Your task to perform on an android device: Open Chrome and go to settings Image 0: 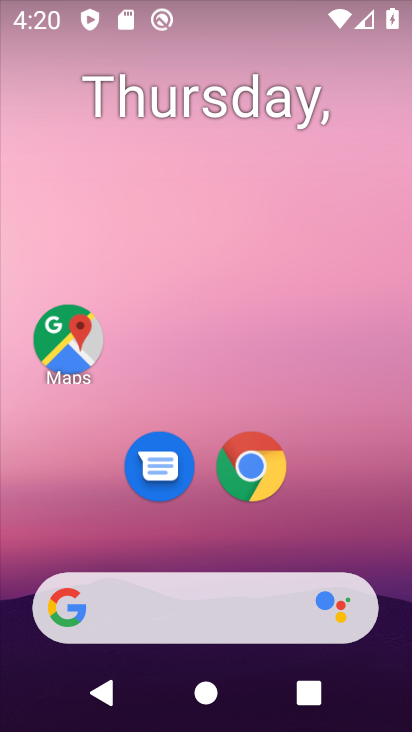
Step 0: press home button
Your task to perform on an android device: Open Chrome and go to settings Image 1: 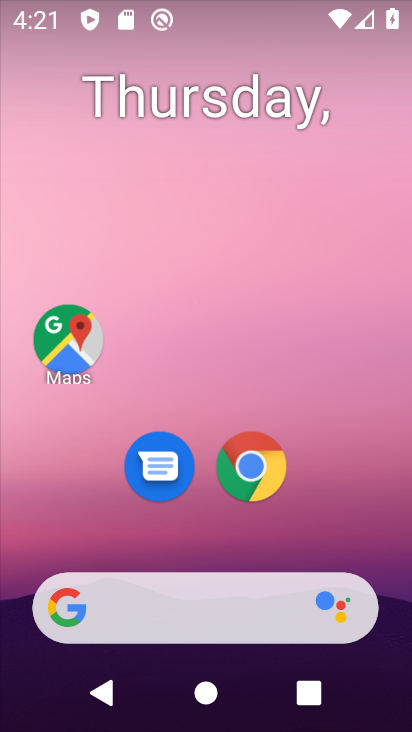
Step 1: click (247, 464)
Your task to perform on an android device: Open Chrome and go to settings Image 2: 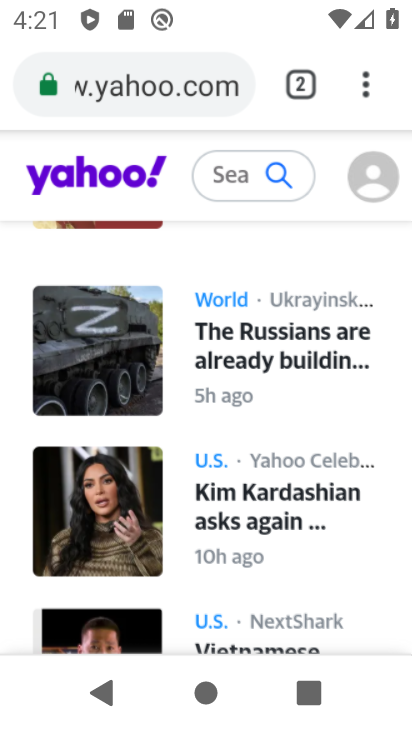
Step 2: click (357, 92)
Your task to perform on an android device: Open Chrome and go to settings Image 3: 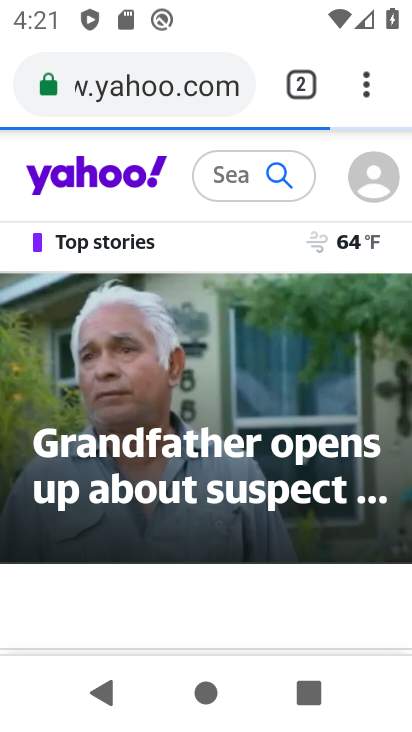
Step 3: click (366, 78)
Your task to perform on an android device: Open Chrome and go to settings Image 4: 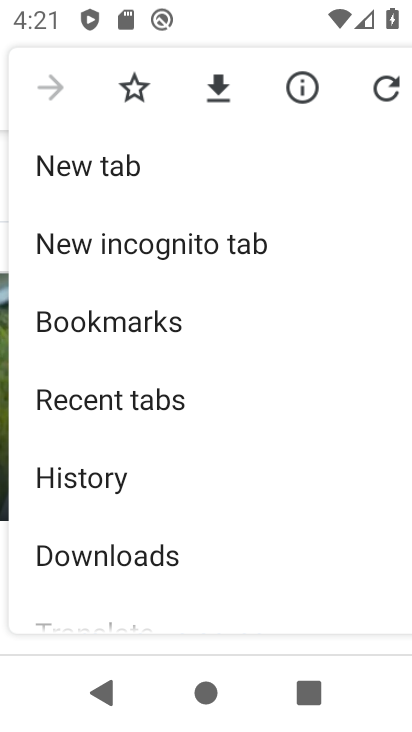
Step 4: drag from (226, 598) to (233, 86)
Your task to perform on an android device: Open Chrome and go to settings Image 5: 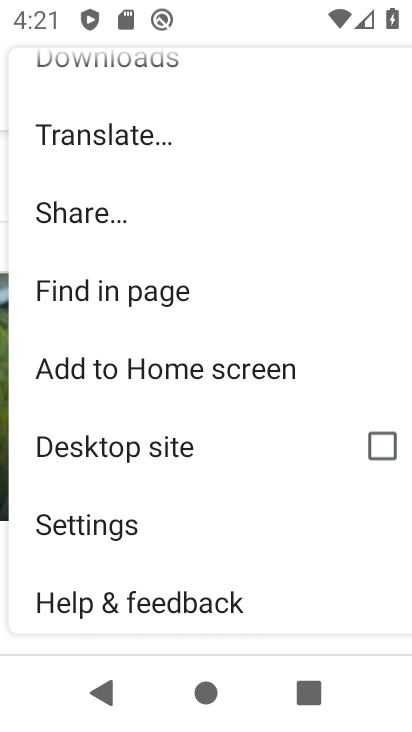
Step 5: click (161, 516)
Your task to perform on an android device: Open Chrome and go to settings Image 6: 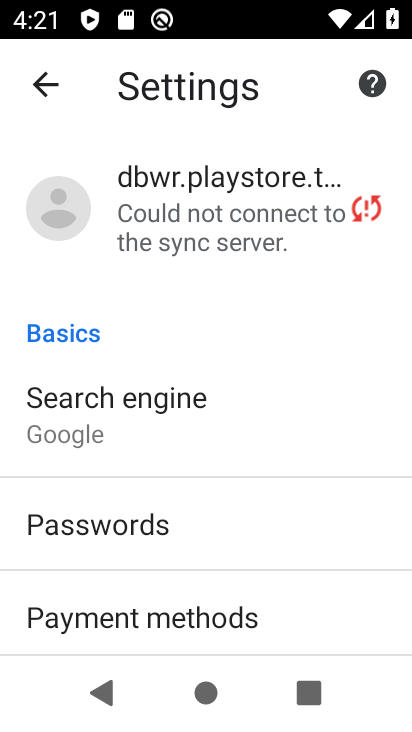
Step 6: task complete